Your task to perform on an android device: move an email to a new category in the gmail app Image 0: 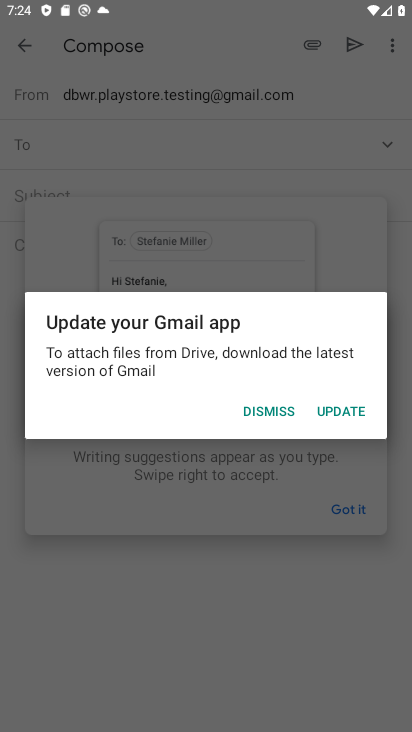
Step 0: press home button
Your task to perform on an android device: move an email to a new category in the gmail app Image 1: 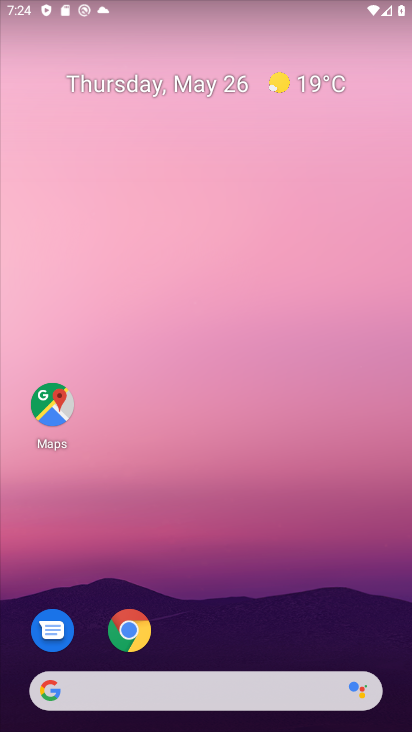
Step 1: drag from (261, 608) to (255, 73)
Your task to perform on an android device: move an email to a new category in the gmail app Image 2: 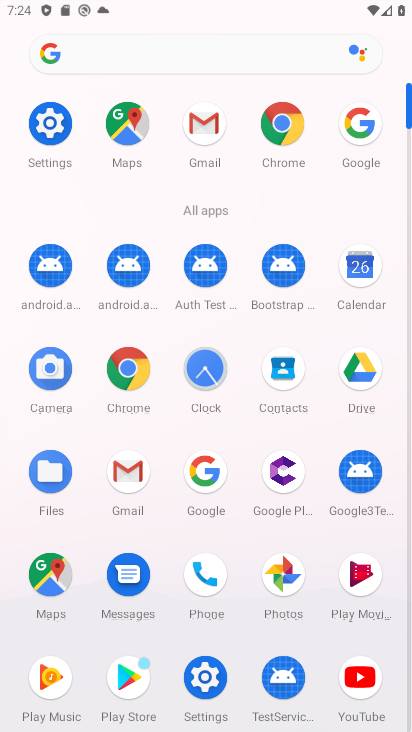
Step 2: click (203, 124)
Your task to perform on an android device: move an email to a new category in the gmail app Image 3: 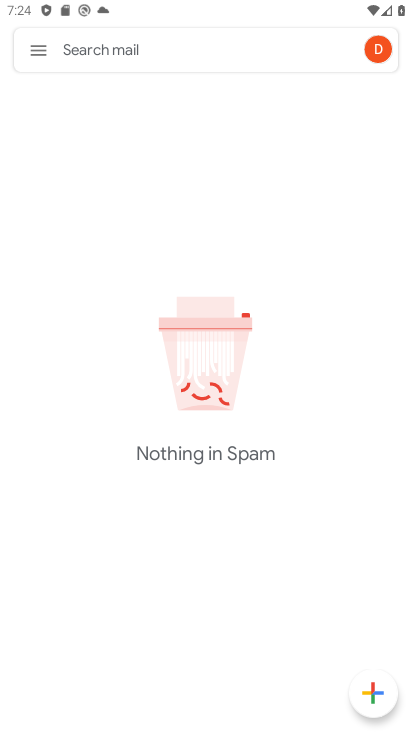
Step 3: click (29, 38)
Your task to perform on an android device: move an email to a new category in the gmail app Image 4: 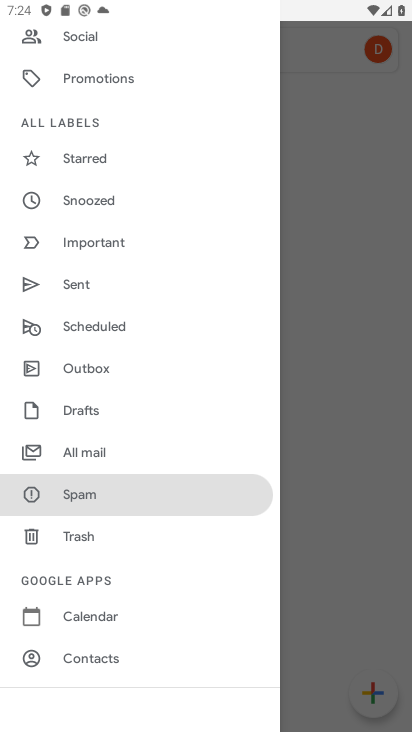
Step 4: click (96, 451)
Your task to perform on an android device: move an email to a new category in the gmail app Image 5: 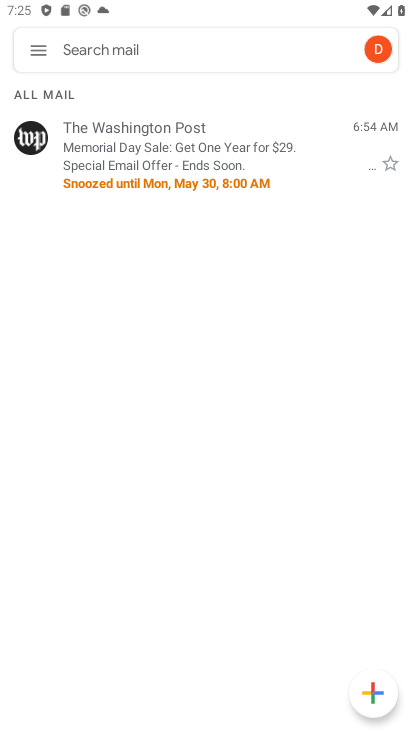
Step 5: click (110, 151)
Your task to perform on an android device: move an email to a new category in the gmail app Image 6: 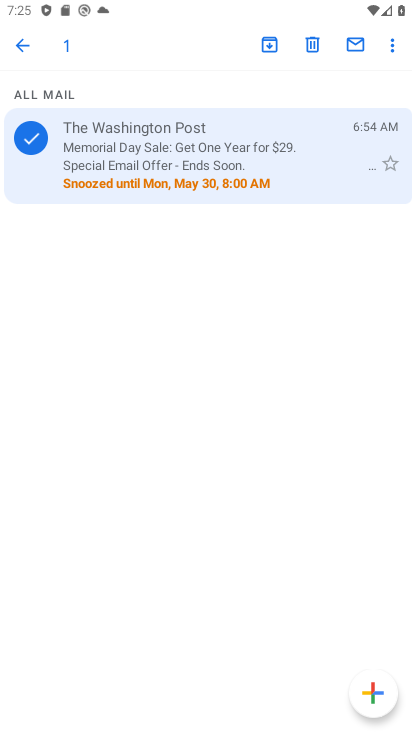
Step 6: click (394, 43)
Your task to perform on an android device: move an email to a new category in the gmail app Image 7: 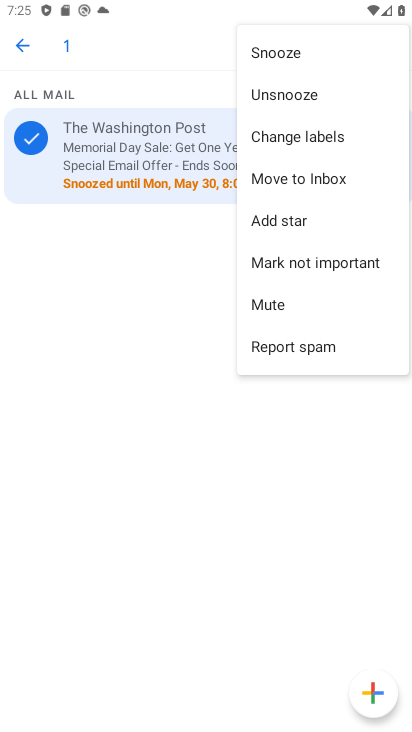
Step 7: click (339, 194)
Your task to perform on an android device: move an email to a new category in the gmail app Image 8: 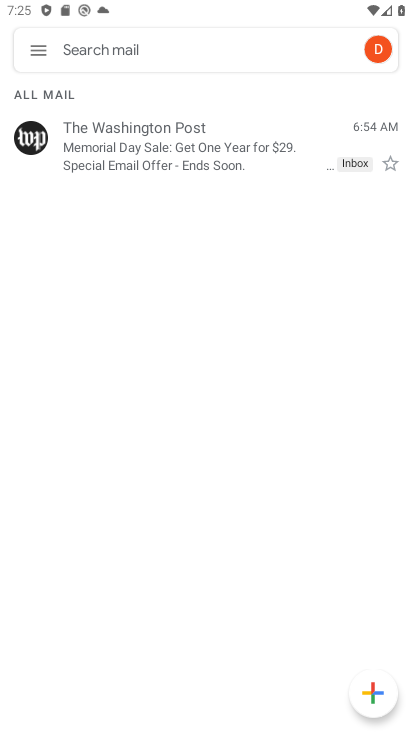
Step 8: task complete